Your task to perform on an android device: turn off airplane mode Image 0: 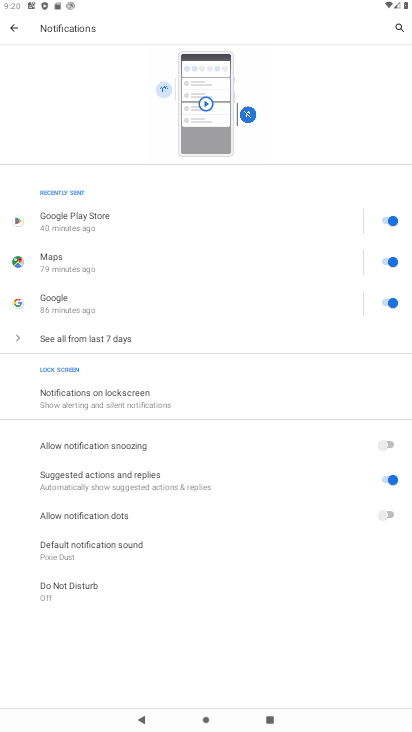
Step 0: press home button
Your task to perform on an android device: turn off airplane mode Image 1: 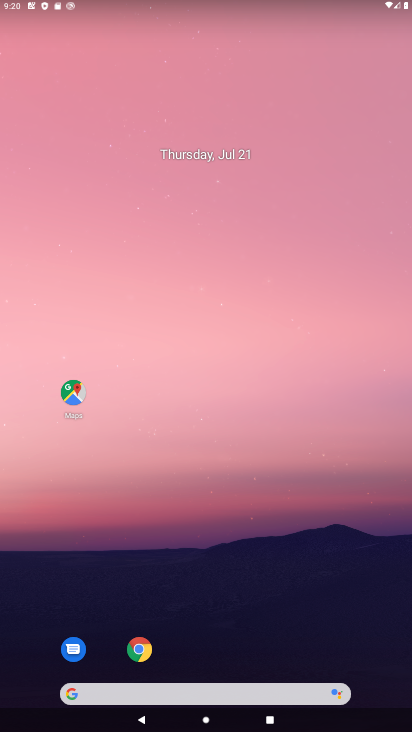
Step 1: drag from (206, 664) to (221, 194)
Your task to perform on an android device: turn off airplane mode Image 2: 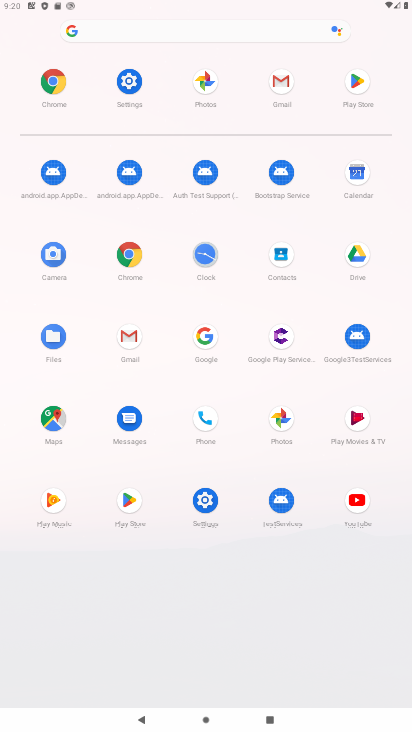
Step 2: click (200, 510)
Your task to perform on an android device: turn off airplane mode Image 3: 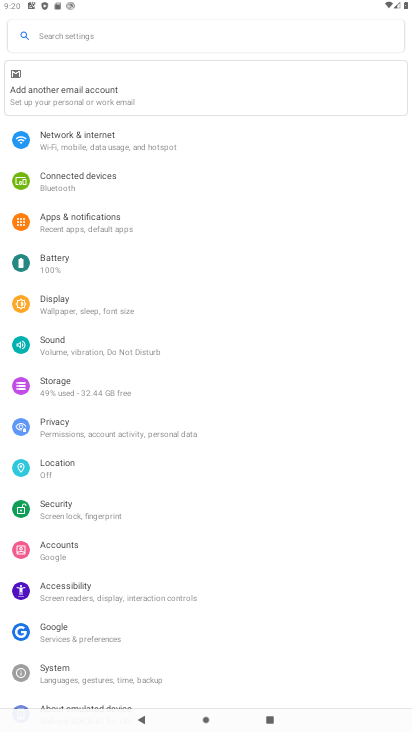
Step 3: click (116, 143)
Your task to perform on an android device: turn off airplane mode Image 4: 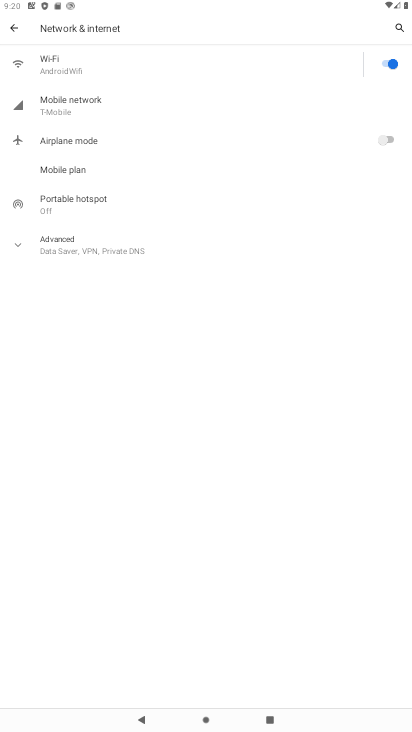
Step 4: task complete